Your task to perform on an android device: Turn off the flashlight Image 0: 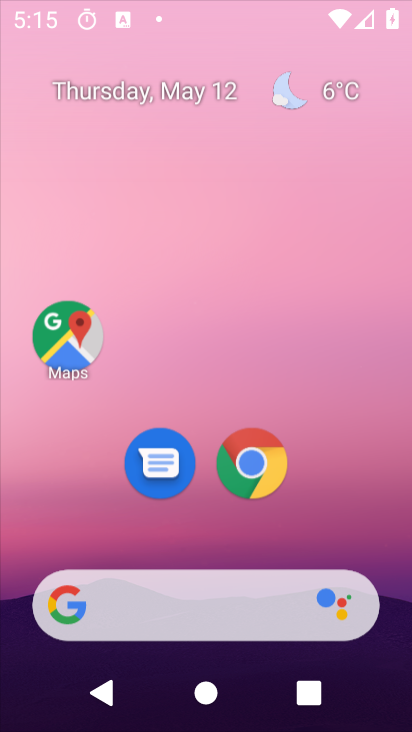
Step 0: drag from (359, 485) to (383, 292)
Your task to perform on an android device: Turn off the flashlight Image 1: 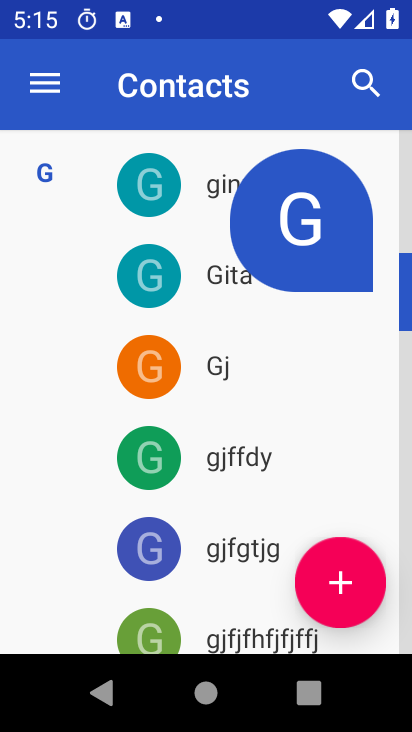
Step 1: press home button
Your task to perform on an android device: Turn off the flashlight Image 2: 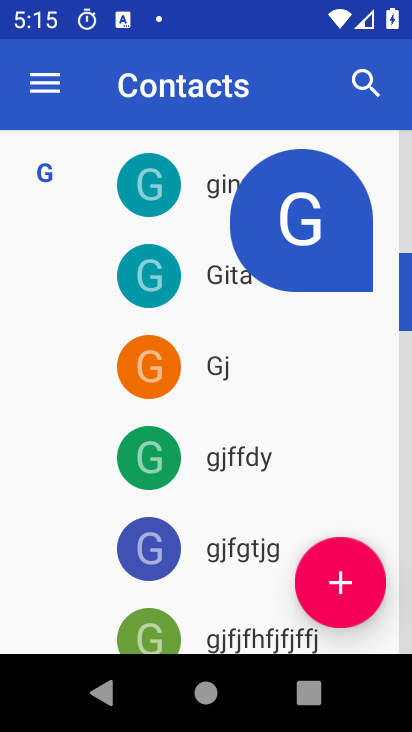
Step 2: drag from (383, 292) to (406, 636)
Your task to perform on an android device: Turn off the flashlight Image 3: 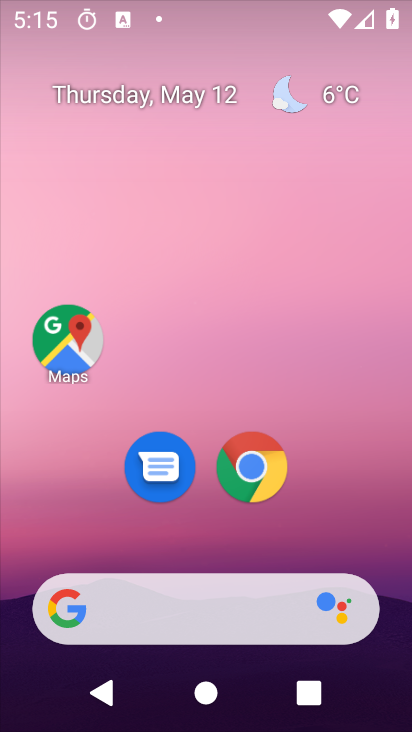
Step 3: drag from (272, 616) to (403, 6)
Your task to perform on an android device: Turn off the flashlight Image 4: 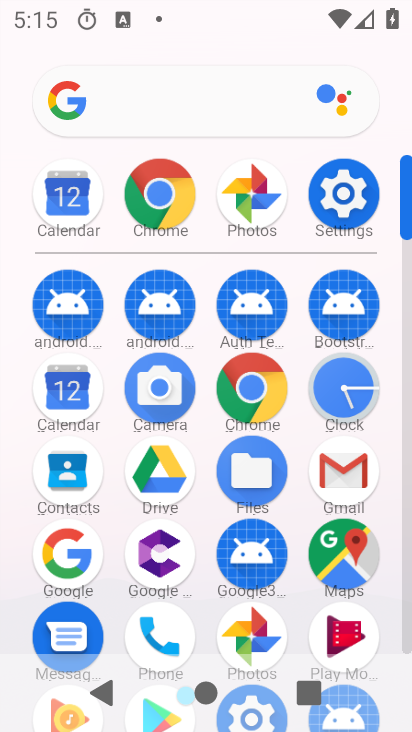
Step 4: click (327, 195)
Your task to perform on an android device: Turn off the flashlight Image 5: 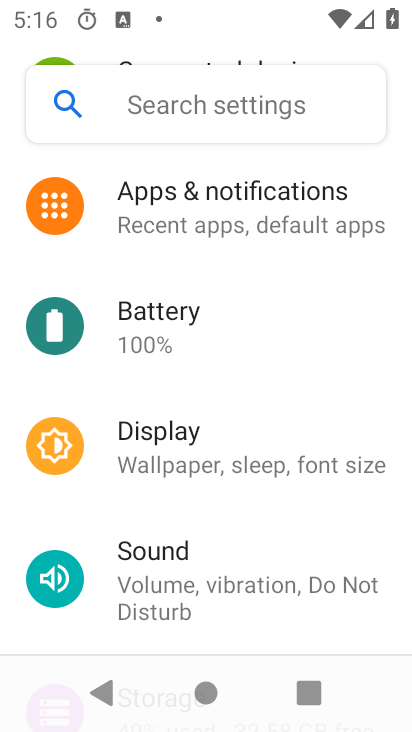
Step 5: task complete